Your task to perform on an android device: open app "Upside-Cash back on gas & food" (install if not already installed) Image 0: 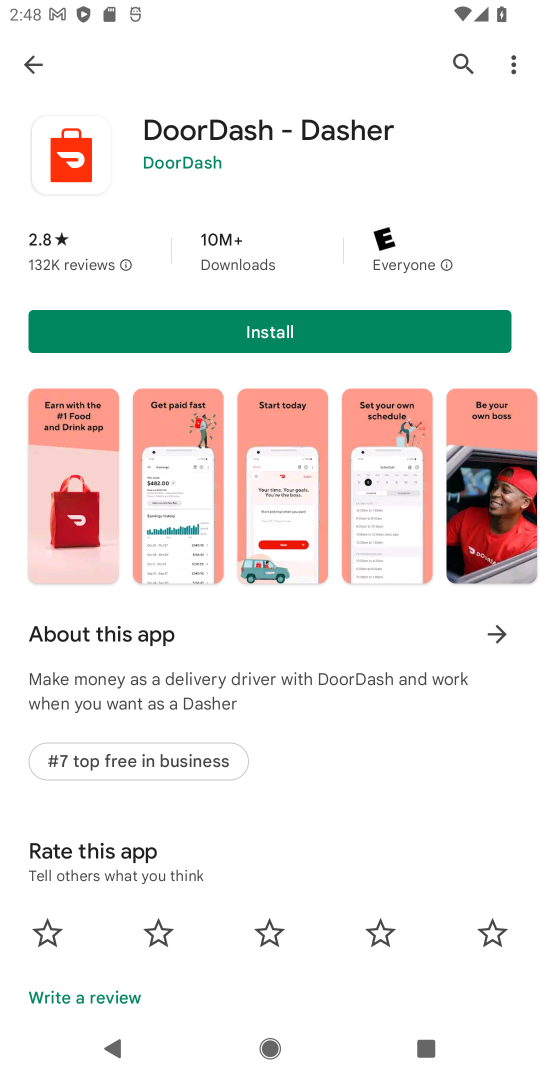
Step 0: press home button
Your task to perform on an android device: open app "Upside-Cash back on gas & food" (install if not already installed) Image 1: 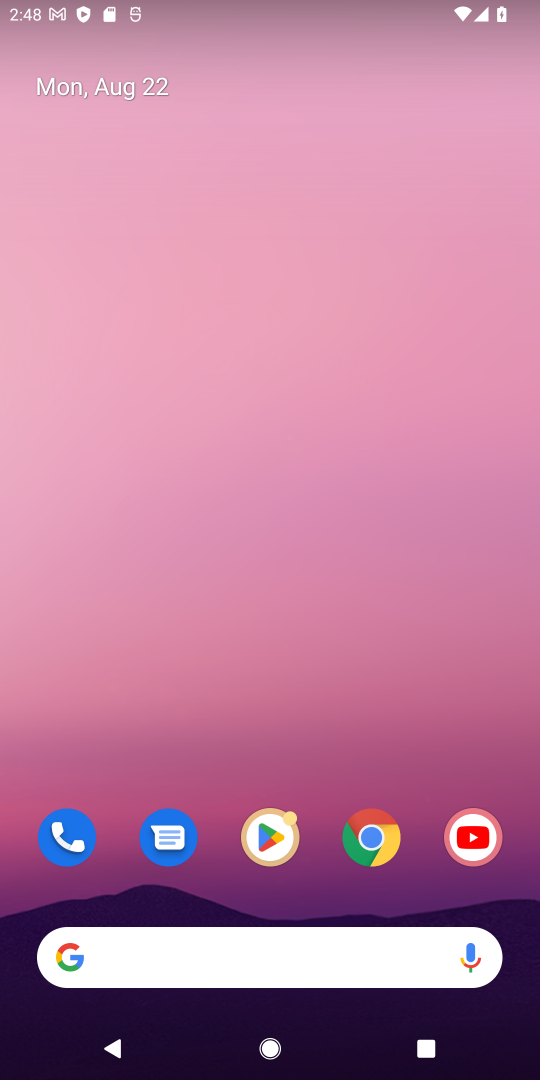
Step 1: drag from (421, 794) to (230, 51)
Your task to perform on an android device: open app "Upside-Cash back on gas & food" (install if not already installed) Image 2: 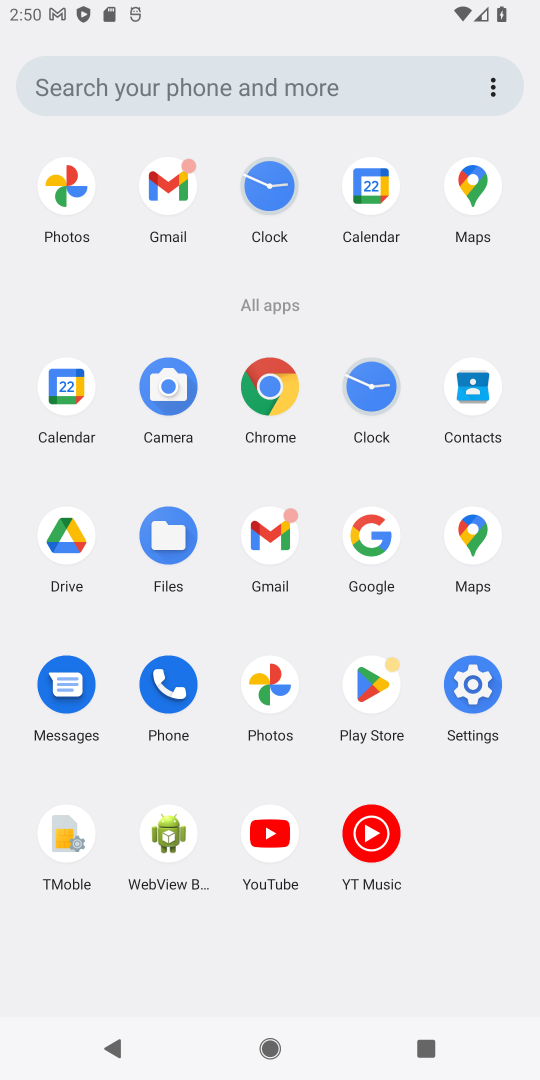
Step 2: click (362, 684)
Your task to perform on an android device: open app "Upside-Cash back on gas & food" (install if not already installed) Image 3: 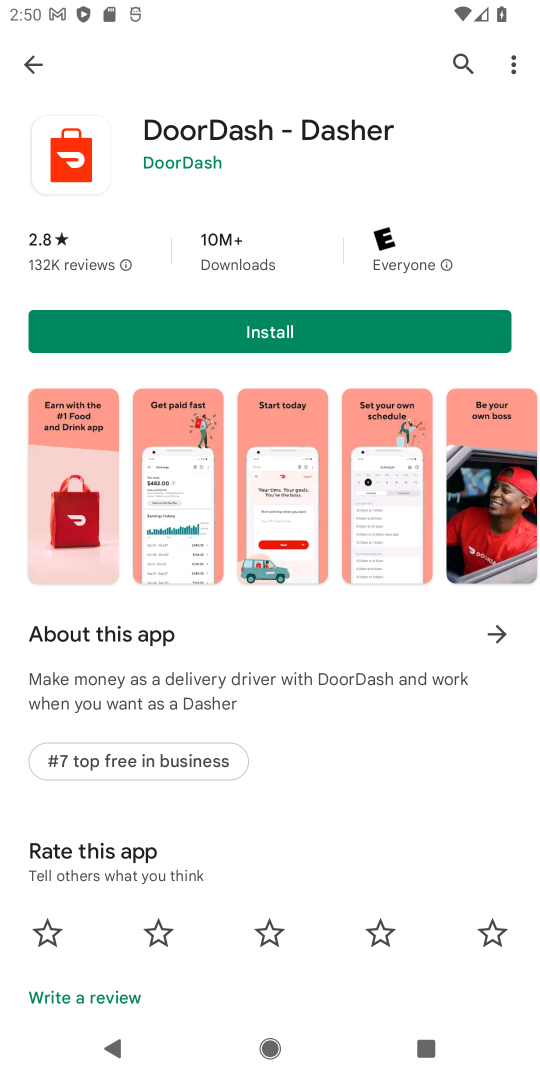
Step 3: press back button
Your task to perform on an android device: open app "Upside-Cash back on gas & food" (install if not already installed) Image 4: 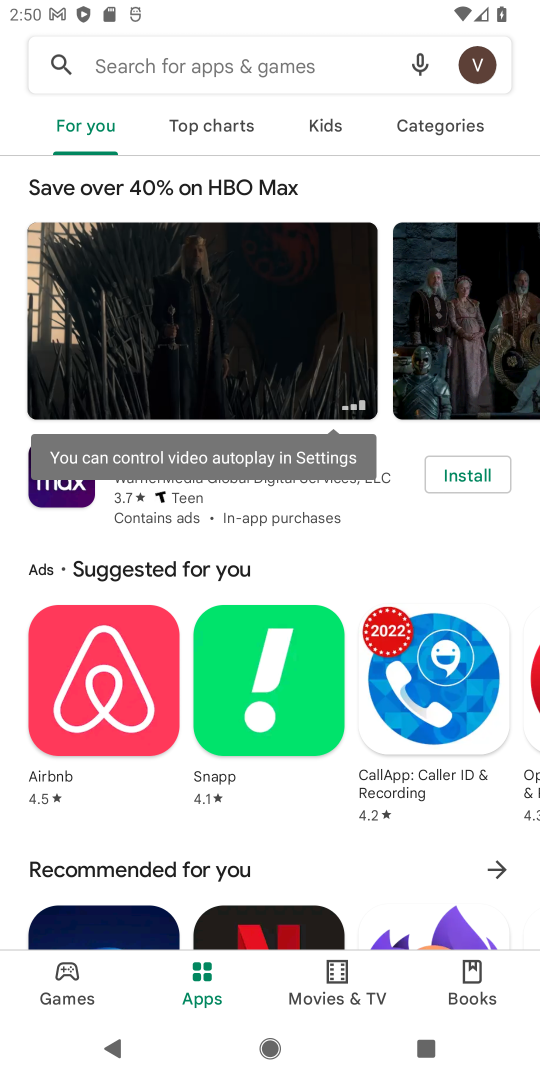
Step 4: click (230, 77)
Your task to perform on an android device: open app "Upside-Cash back on gas & food" (install if not already installed) Image 5: 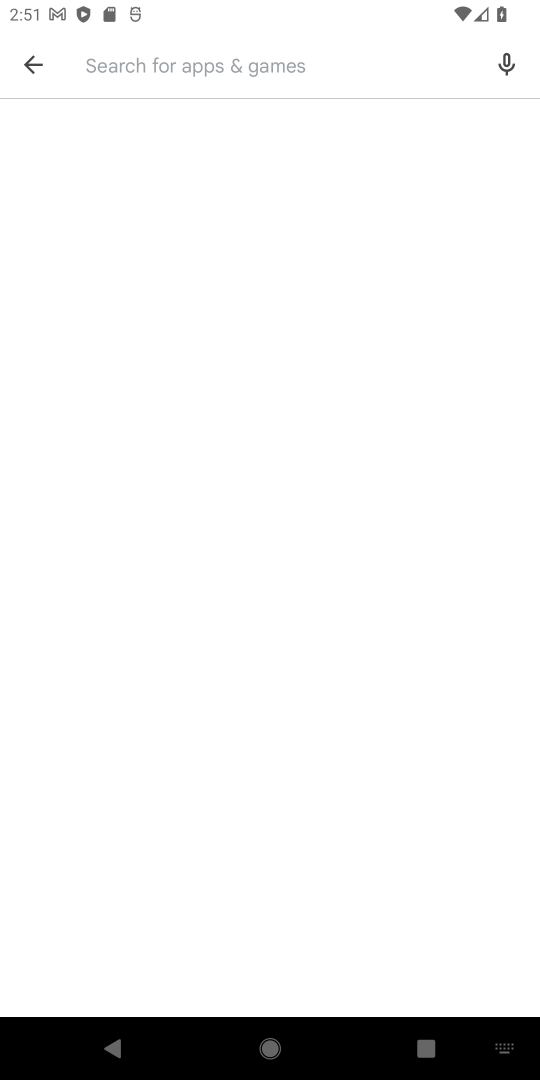
Step 5: type "Upside-Cash back on gas & food"
Your task to perform on an android device: open app "Upside-Cash back on gas & food" (install if not already installed) Image 6: 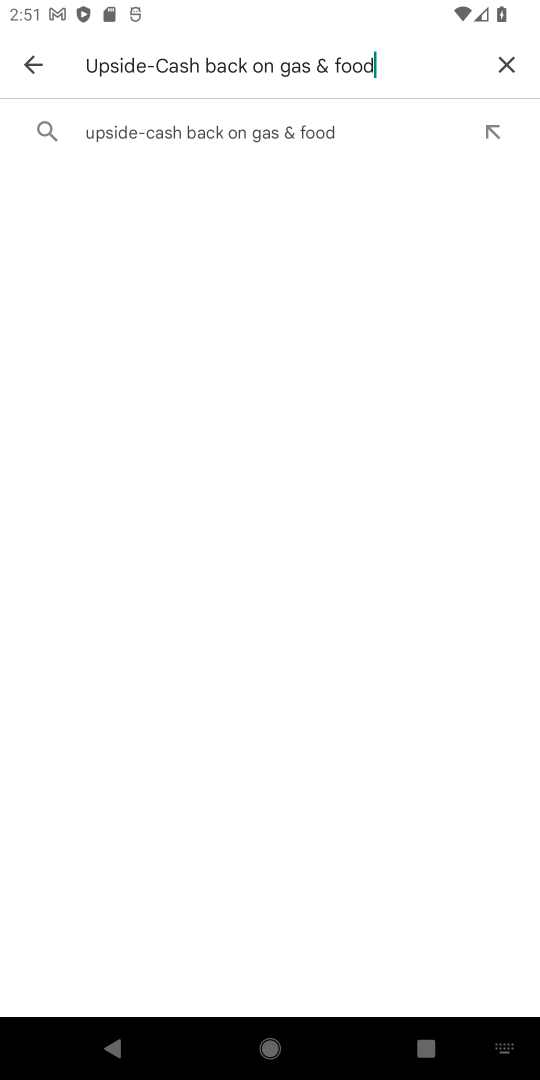
Step 6: click (191, 143)
Your task to perform on an android device: open app "Upside-Cash back on gas & food" (install if not already installed) Image 7: 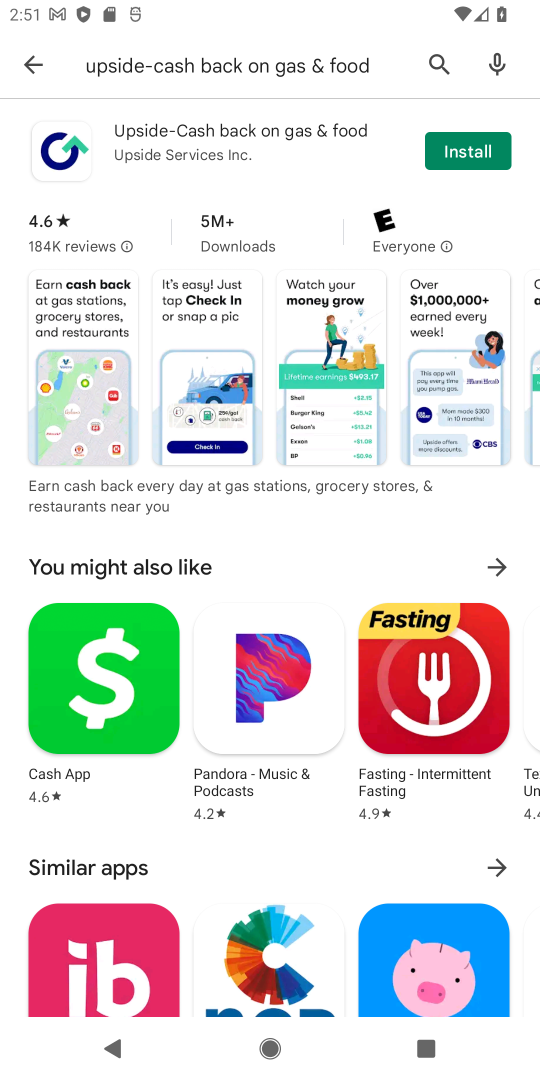
Step 7: task complete